Your task to perform on an android device: toggle javascript in the chrome app Image 0: 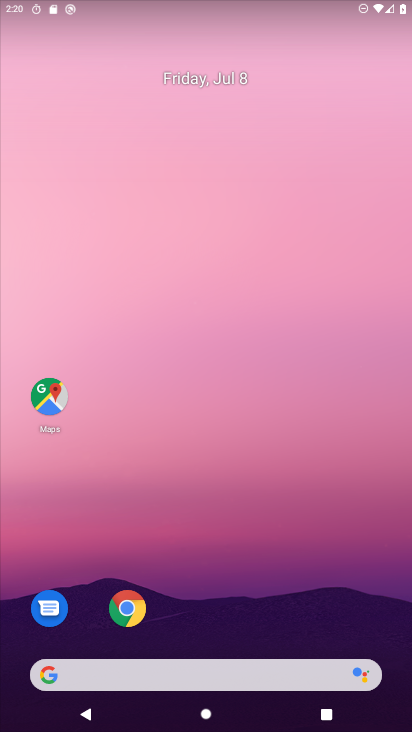
Step 0: click (128, 612)
Your task to perform on an android device: toggle javascript in the chrome app Image 1: 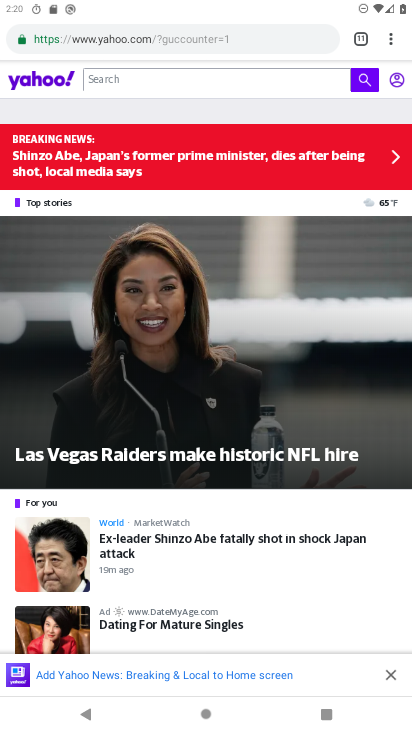
Step 1: click (391, 41)
Your task to perform on an android device: toggle javascript in the chrome app Image 2: 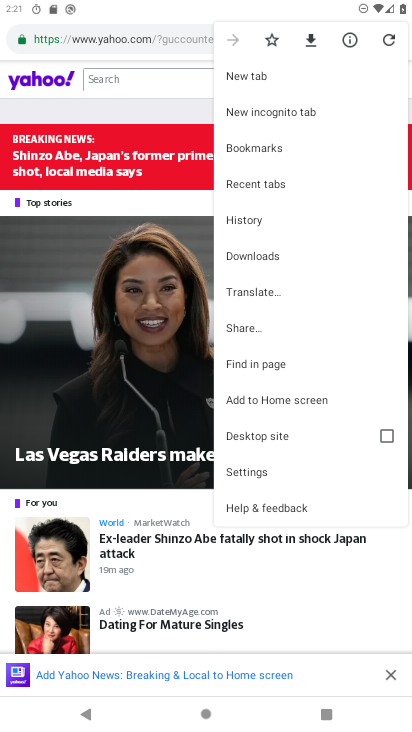
Step 2: click (260, 470)
Your task to perform on an android device: toggle javascript in the chrome app Image 3: 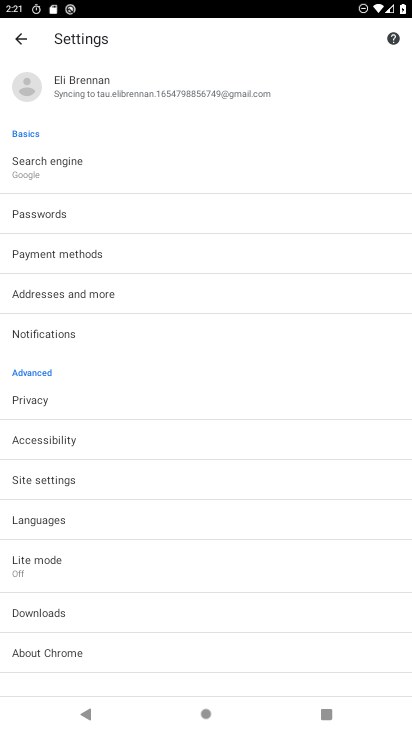
Step 3: click (56, 478)
Your task to perform on an android device: toggle javascript in the chrome app Image 4: 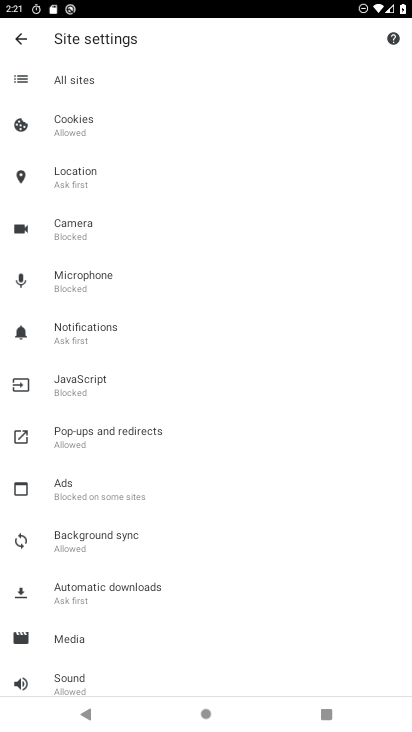
Step 4: click (84, 376)
Your task to perform on an android device: toggle javascript in the chrome app Image 5: 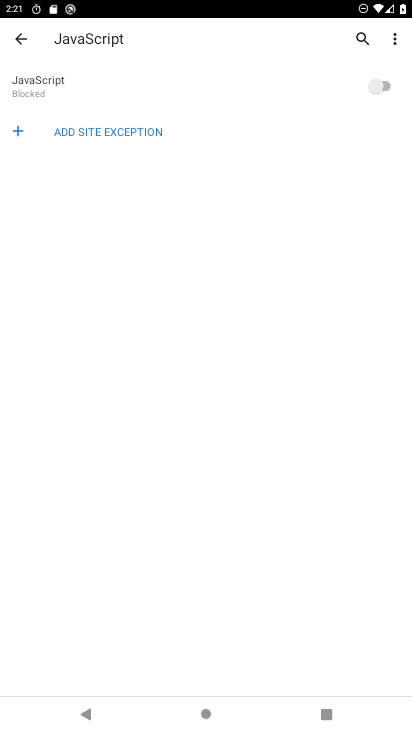
Step 5: click (380, 85)
Your task to perform on an android device: toggle javascript in the chrome app Image 6: 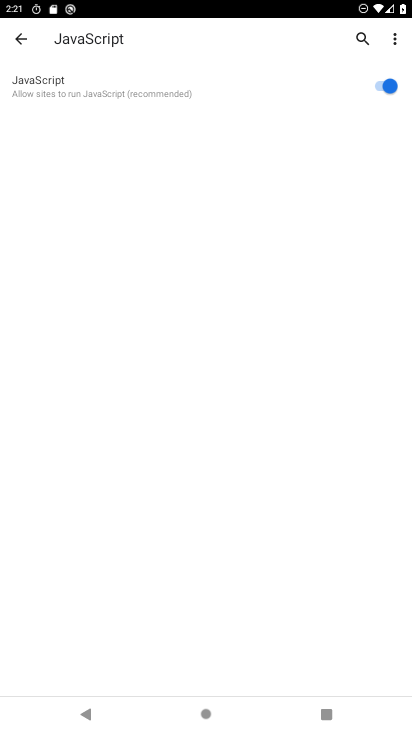
Step 6: task complete